Your task to perform on an android device: find snoozed emails in the gmail app Image 0: 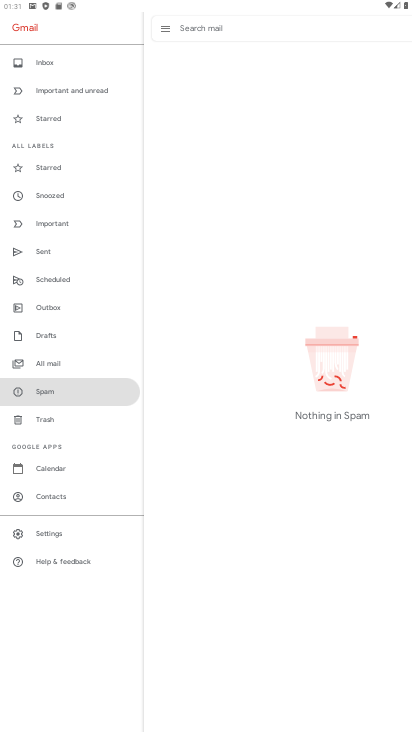
Step 0: press home button
Your task to perform on an android device: find snoozed emails in the gmail app Image 1: 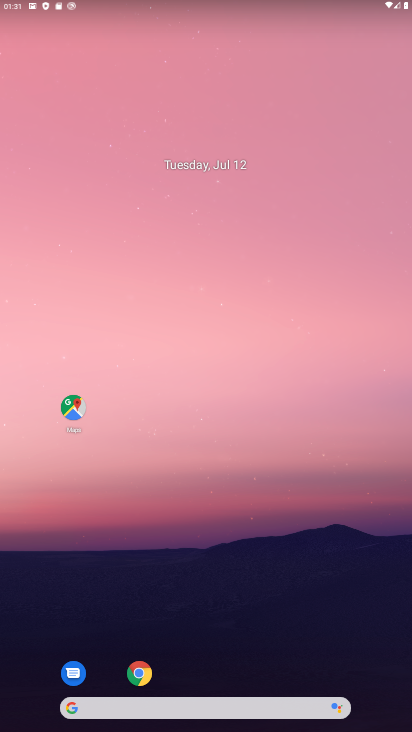
Step 1: drag from (274, 553) to (273, 32)
Your task to perform on an android device: find snoozed emails in the gmail app Image 2: 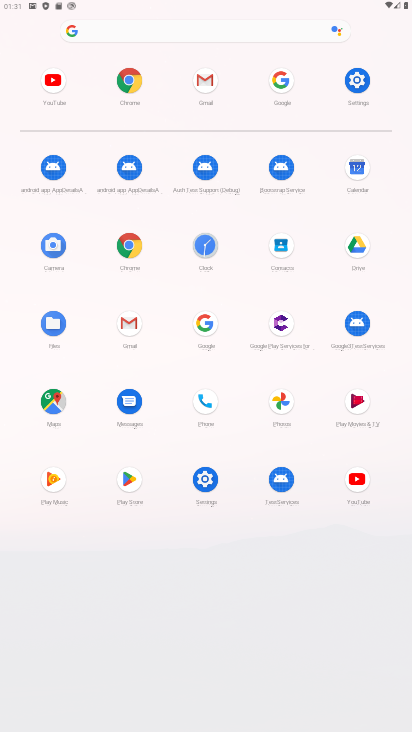
Step 2: click (201, 80)
Your task to perform on an android device: find snoozed emails in the gmail app Image 3: 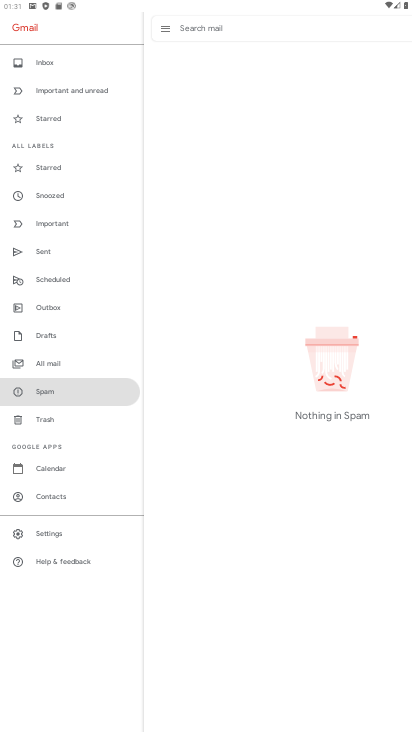
Step 3: click (57, 195)
Your task to perform on an android device: find snoozed emails in the gmail app Image 4: 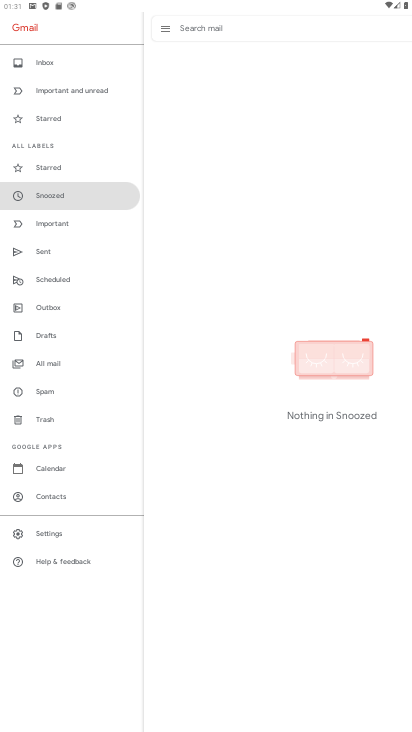
Step 4: task complete